Your task to perform on an android device: View the shopping cart on amazon. Add "bose quietcomfort 35" to the cart on amazon, then select checkout. Image 0: 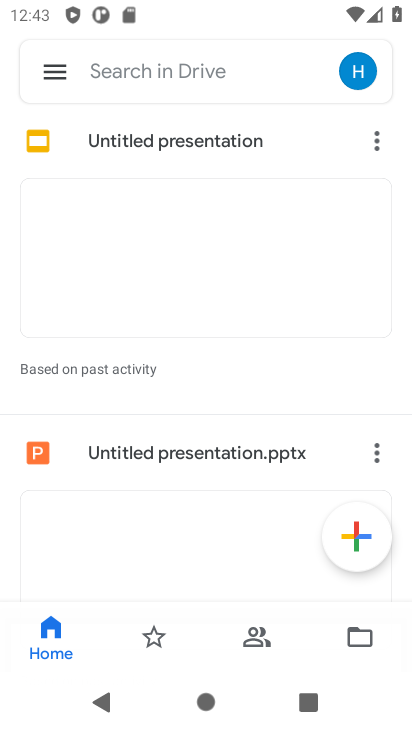
Step 0: press home button
Your task to perform on an android device: View the shopping cart on amazon. Add "bose quietcomfort 35" to the cart on amazon, then select checkout. Image 1: 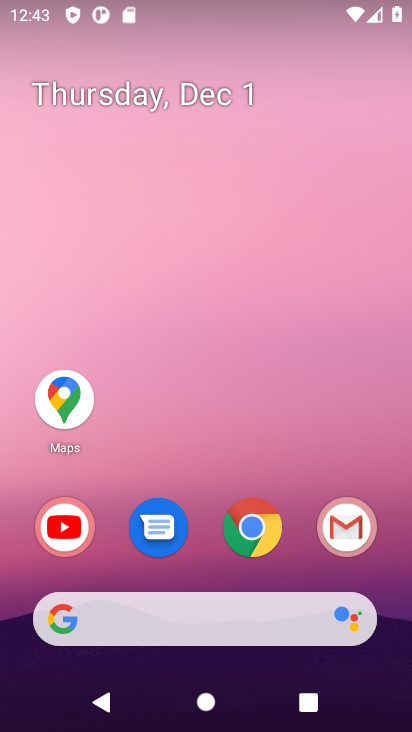
Step 1: click (255, 535)
Your task to perform on an android device: View the shopping cart on amazon. Add "bose quietcomfort 35" to the cart on amazon, then select checkout. Image 2: 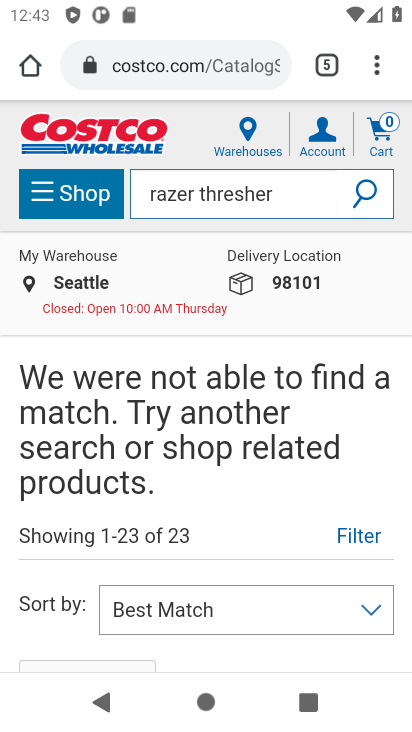
Step 2: click (170, 60)
Your task to perform on an android device: View the shopping cart on amazon. Add "bose quietcomfort 35" to the cart on amazon, then select checkout. Image 3: 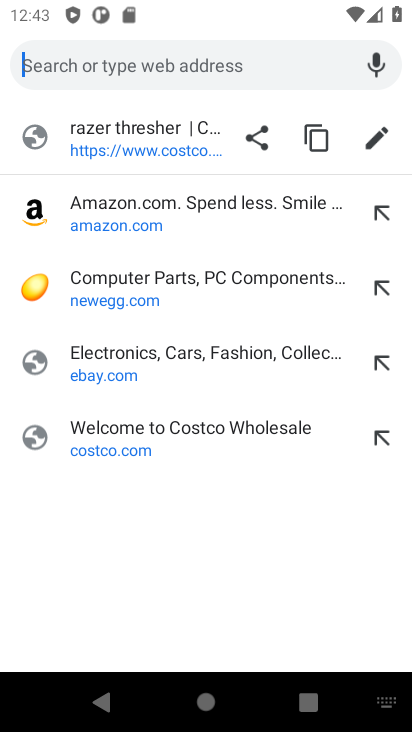
Step 3: click (126, 212)
Your task to perform on an android device: View the shopping cart on amazon. Add "bose quietcomfort 35" to the cart on amazon, then select checkout. Image 4: 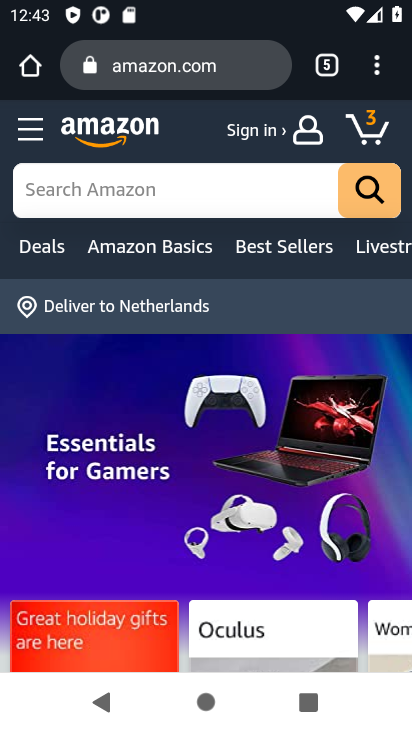
Step 4: click (367, 132)
Your task to perform on an android device: View the shopping cart on amazon. Add "bose quietcomfort 35" to the cart on amazon, then select checkout. Image 5: 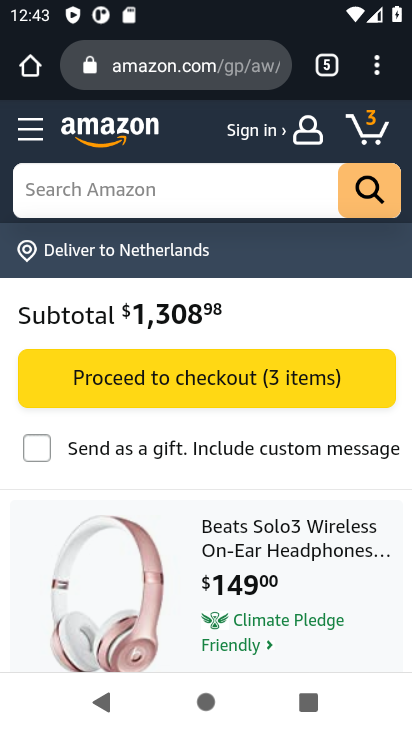
Step 5: click (46, 185)
Your task to perform on an android device: View the shopping cart on amazon. Add "bose quietcomfort 35" to the cart on amazon, then select checkout. Image 6: 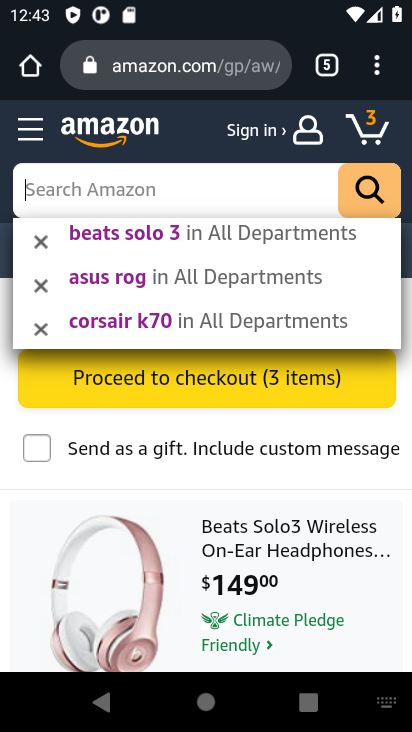
Step 6: type "bose quietcomfort 35"
Your task to perform on an android device: View the shopping cart on amazon. Add "bose quietcomfort 35" to the cart on amazon, then select checkout. Image 7: 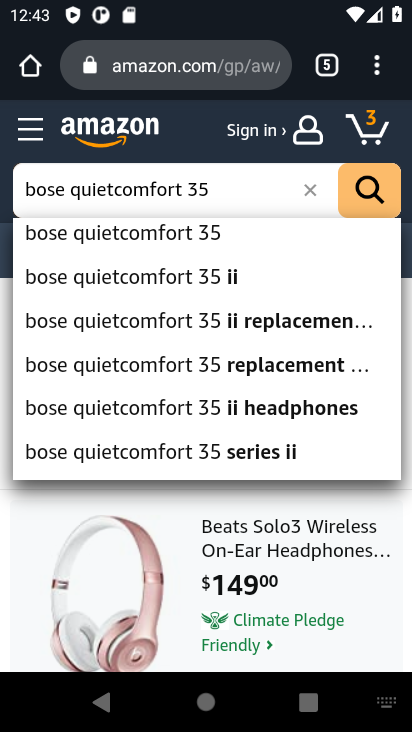
Step 7: click (178, 248)
Your task to perform on an android device: View the shopping cart on amazon. Add "bose quietcomfort 35" to the cart on amazon, then select checkout. Image 8: 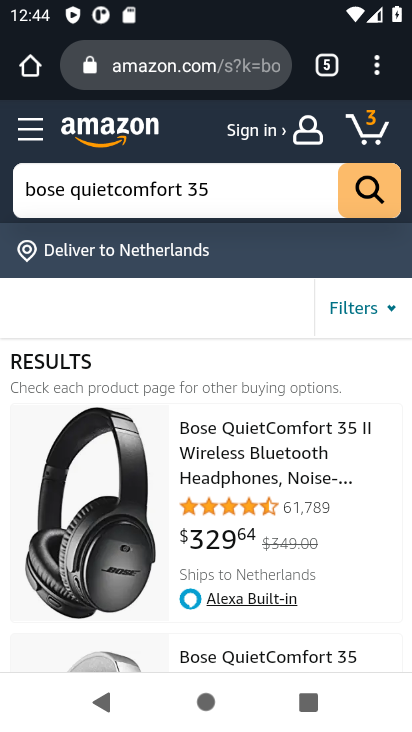
Step 8: drag from (208, 537) to (206, 317)
Your task to perform on an android device: View the shopping cart on amazon. Add "bose quietcomfort 35" to the cart on amazon, then select checkout. Image 9: 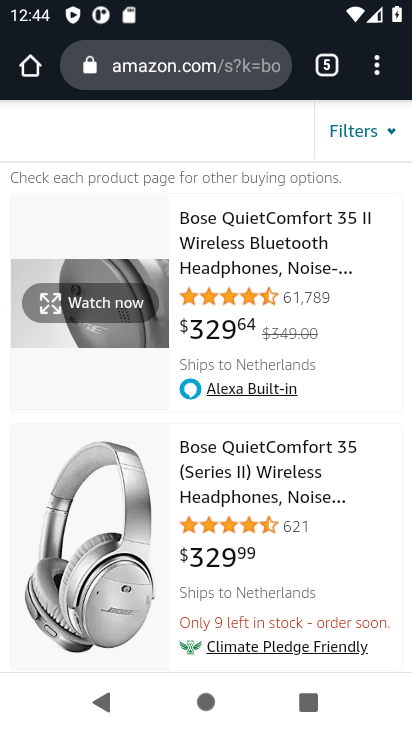
Step 9: click (273, 269)
Your task to perform on an android device: View the shopping cart on amazon. Add "bose quietcomfort 35" to the cart on amazon, then select checkout. Image 10: 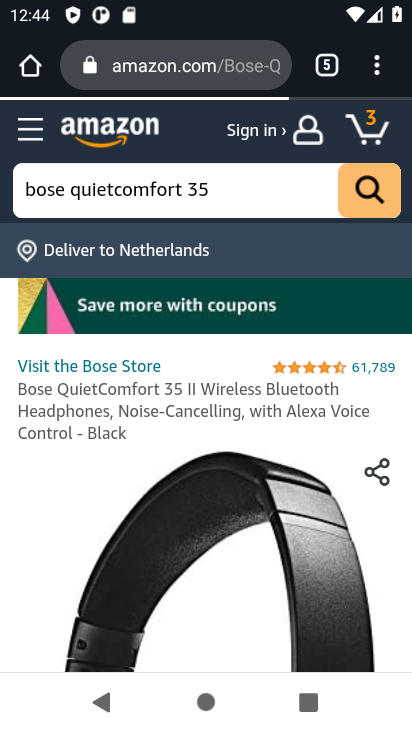
Step 10: drag from (201, 531) to (190, 101)
Your task to perform on an android device: View the shopping cart on amazon. Add "bose quietcomfort 35" to the cart on amazon, then select checkout. Image 11: 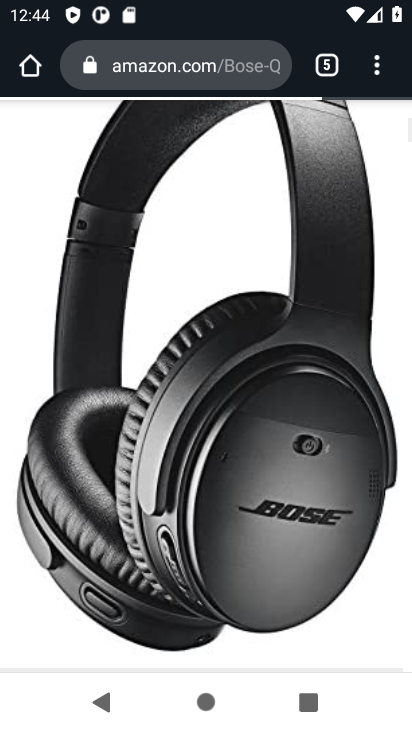
Step 11: drag from (160, 459) to (156, 150)
Your task to perform on an android device: View the shopping cart on amazon. Add "bose quietcomfort 35" to the cart on amazon, then select checkout. Image 12: 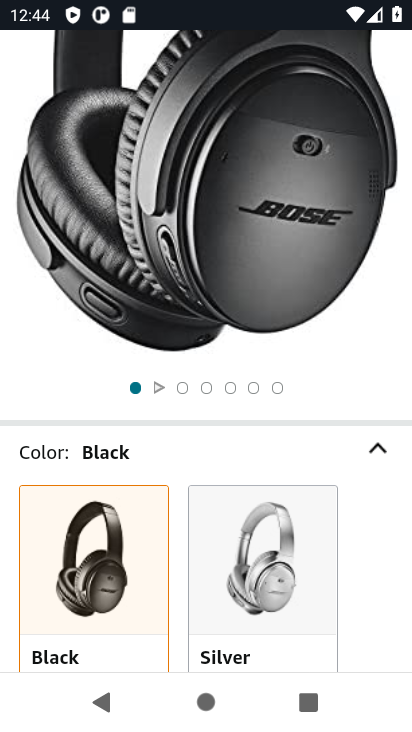
Step 12: drag from (169, 415) to (183, 10)
Your task to perform on an android device: View the shopping cart on amazon. Add "bose quietcomfort 35" to the cart on amazon, then select checkout. Image 13: 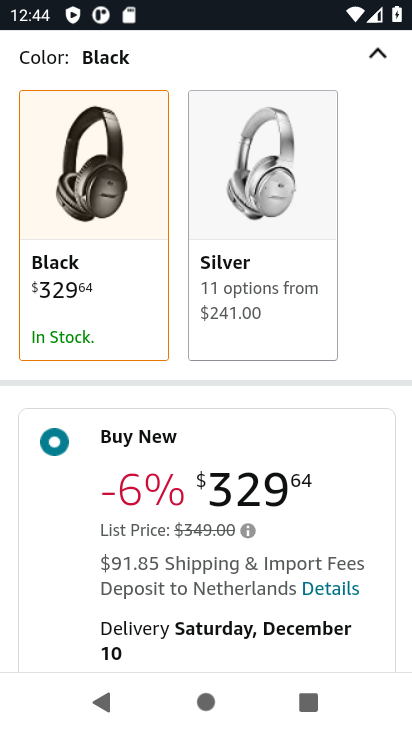
Step 13: drag from (147, 385) to (178, 43)
Your task to perform on an android device: View the shopping cart on amazon. Add "bose quietcomfort 35" to the cart on amazon, then select checkout. Image 14: 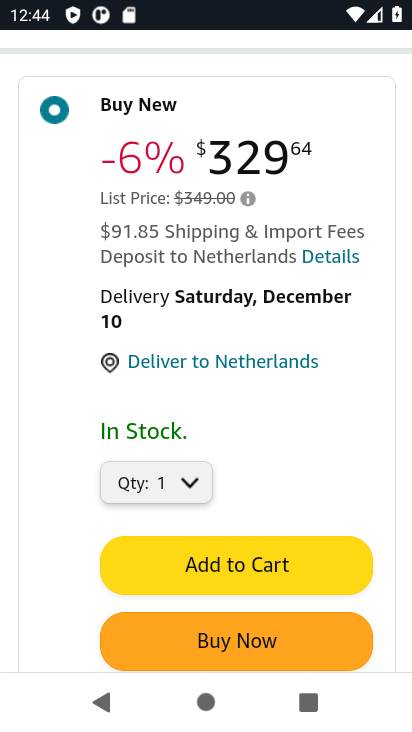
Step 14: click (182, 570)
Your task to perform on an android device: View the shopping cart on amazon. Add "bose quietcomfort 35" to the cart on amazon, then select checkout. Image 15: 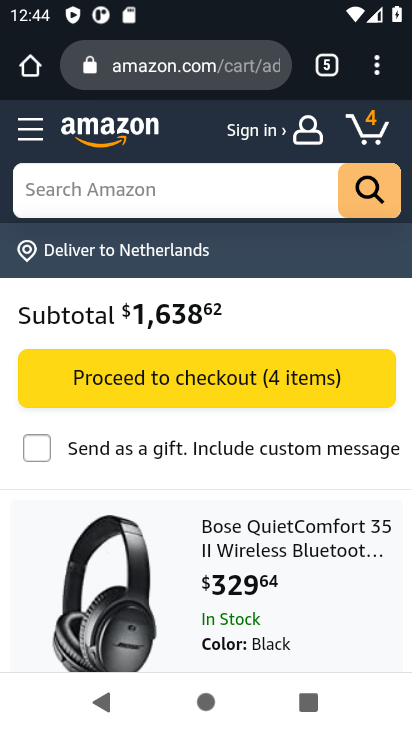
Step 15: click (200, 378)
Your task to perform on an android device: View the shopping cart on amazon. Add "bose quietcomfort 35" to the cart on amazon, then select checkout. Image 16: 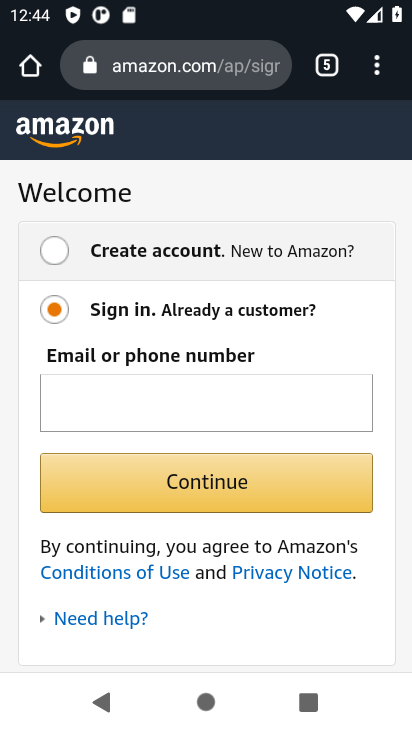
Step 16: task complete